Your task to perform on an android device: change your default location settings in chrome Image 0: 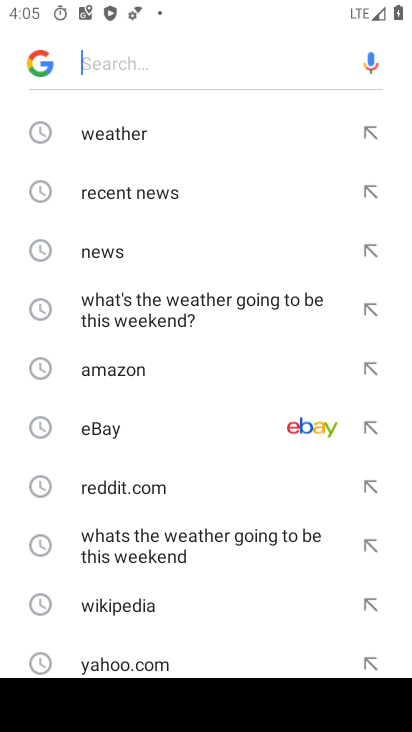
Step 0: press home button
Your task to perform on an android device: change your default location settings in chrome Image 1: 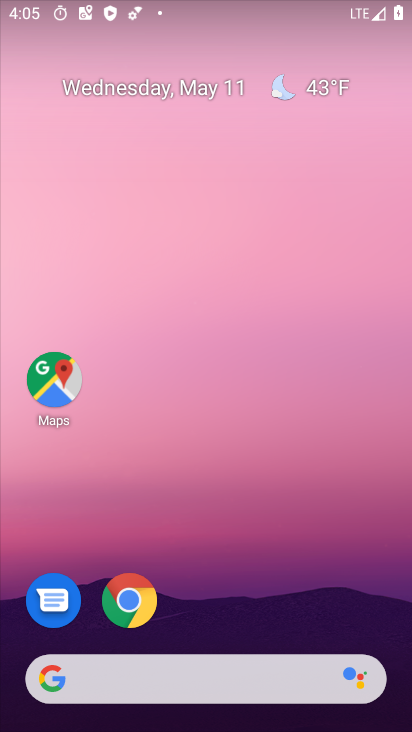
Step 1: click (137, 621)
Your task to perform on an android device: change your default location settings in chrome Image 2: 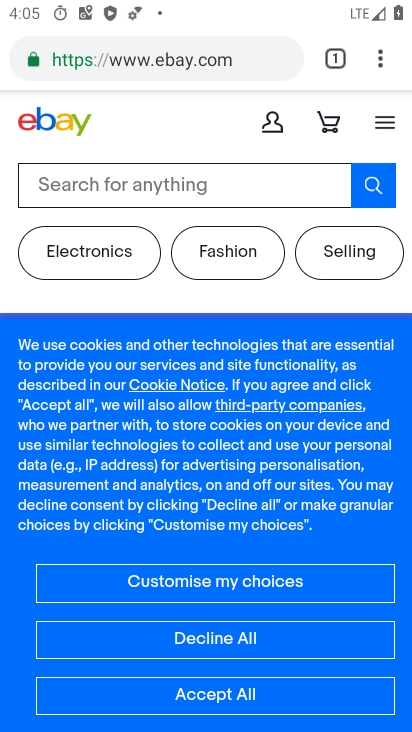
Step 2: drag from (377, 58) to (183, 637)
Your task to perform on an android device: change your default location settings in chrome Image 3: 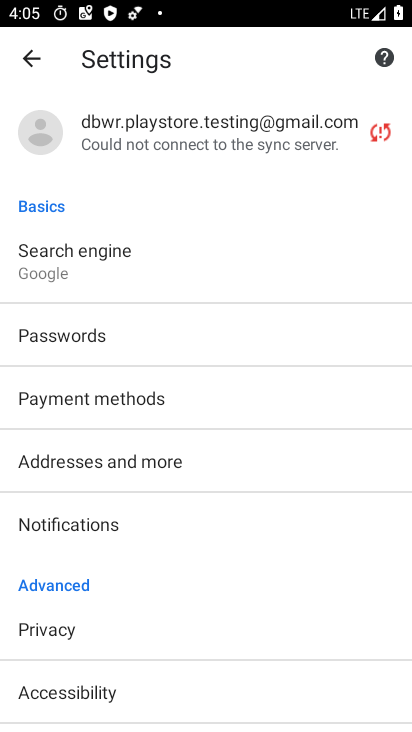
Step 3: drag from (174, 608) to (169, 212)
Your task to perform on an android device: change your default location settings in chrome Image 4: 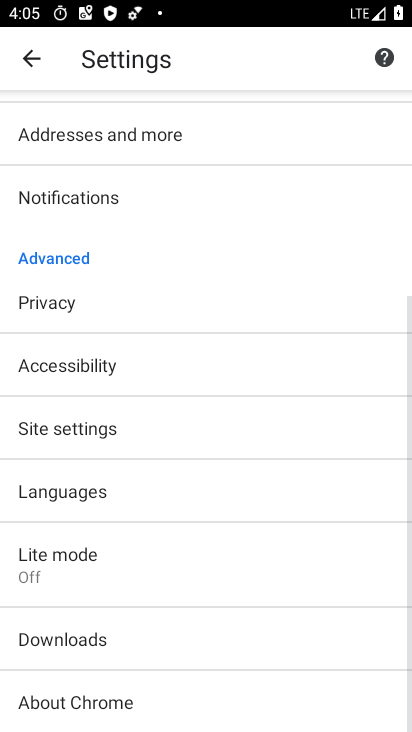
Step 4: click (53, 432)
Your task to perform on an android device: change your default location settings in chrome Image 5: 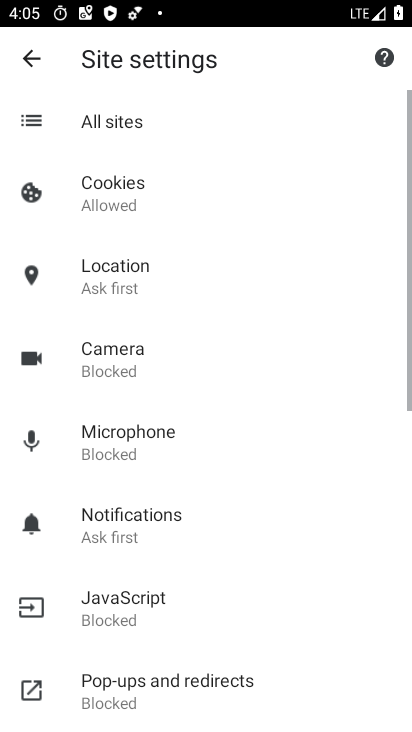
Step 5: click (96, 287)
Your task to perform on an android device: change your default location settings in chrome Image 6: 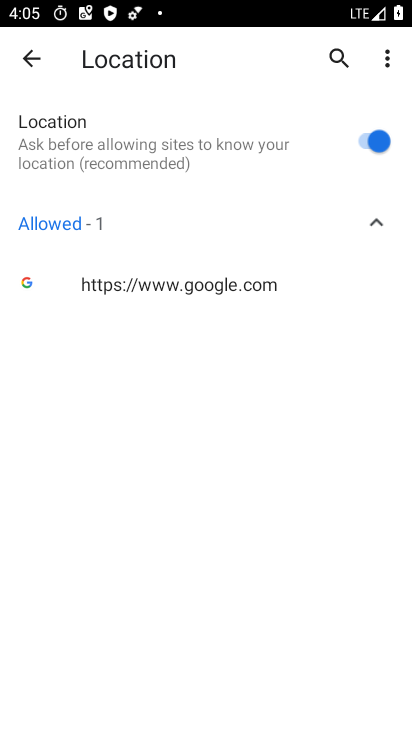
Step 6: click (384, 138)
Your task to perform on an android device: change your default location settings in chrome Image 7: 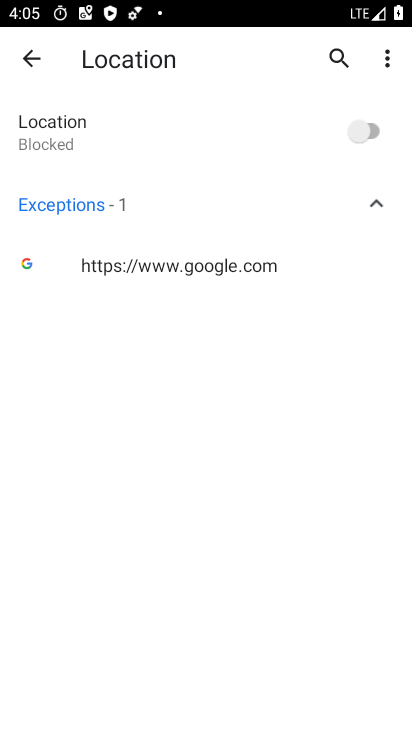
Step 7: task complete